Your task to perform on an android device: Go to network settings Image 0: 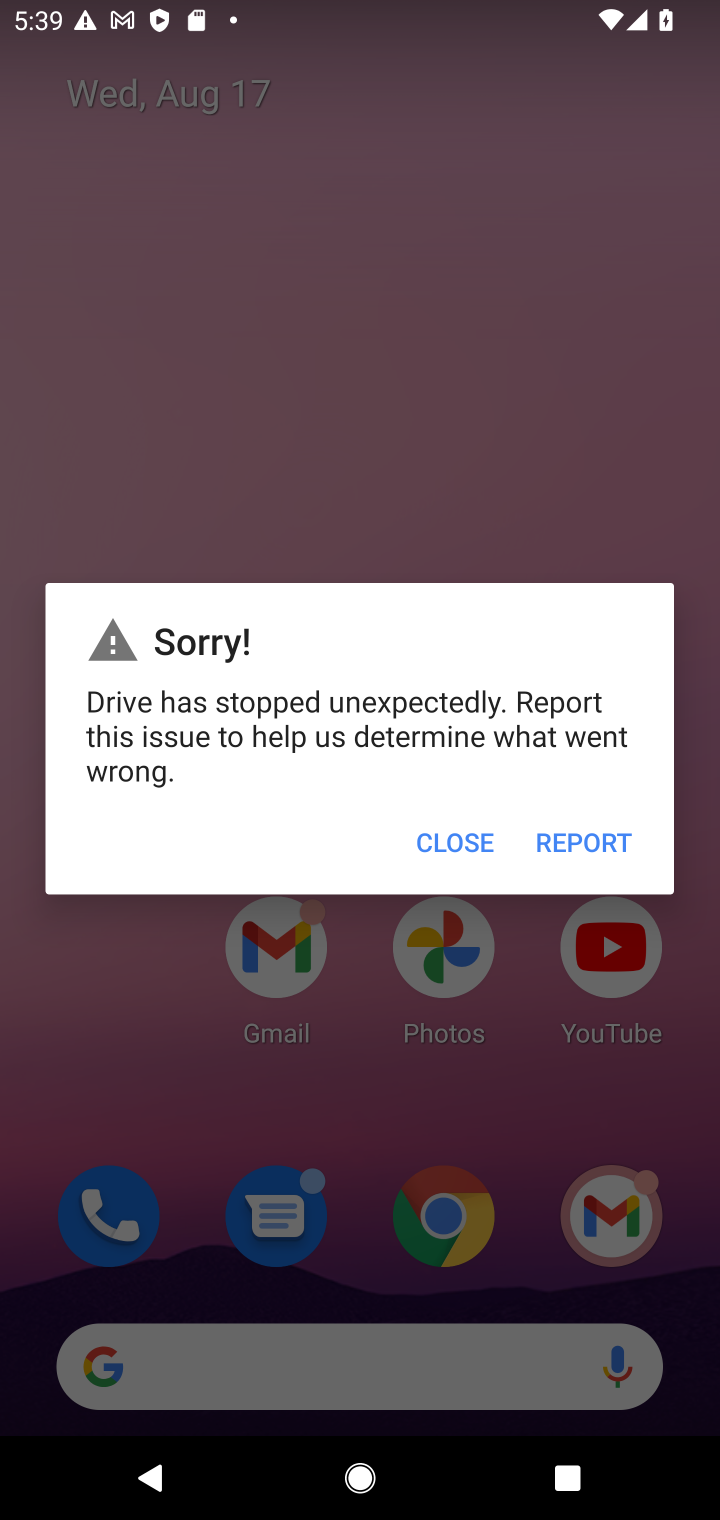
Step 0: press home button
Your task to perform on an android device: Go to network settings Image 1: 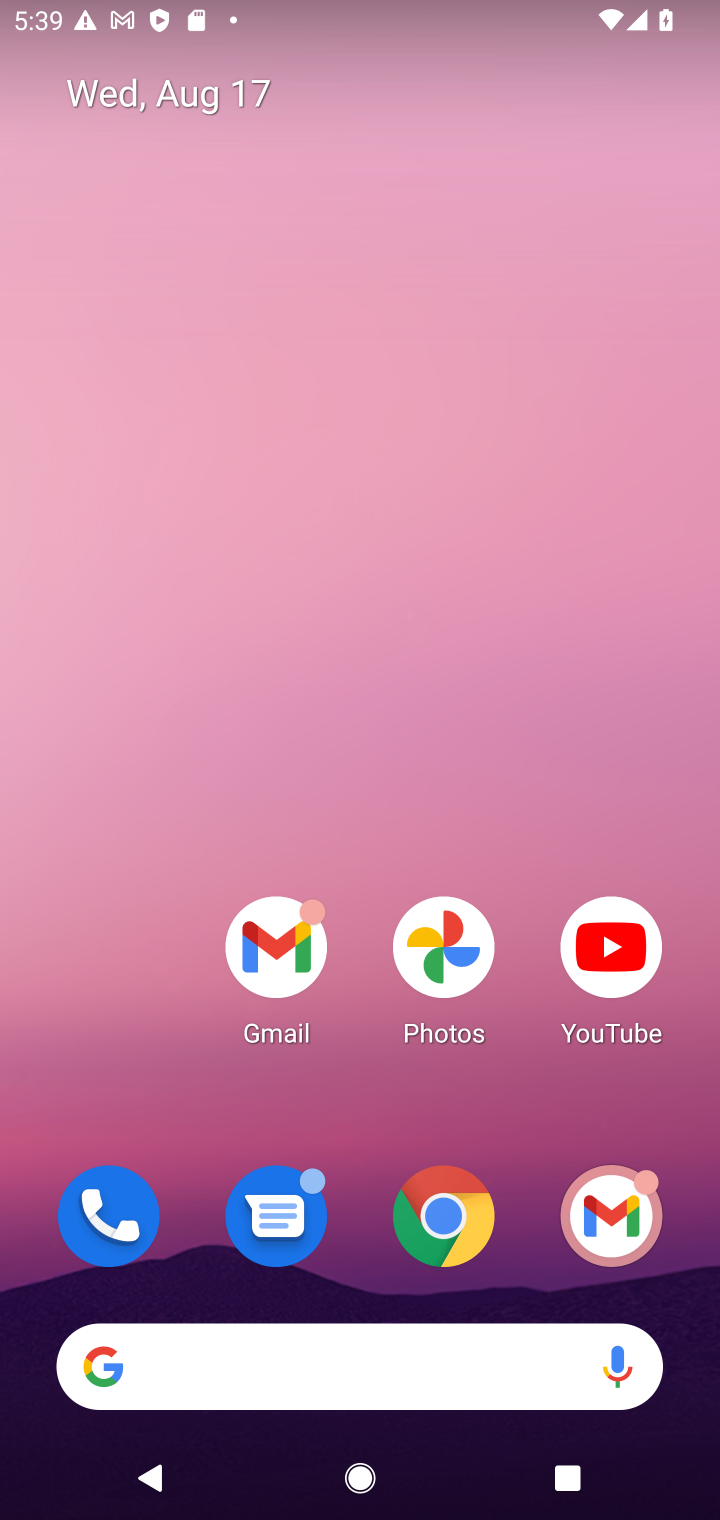
Step 1: drag from (525, 1153) to (515, 108)
Your task to perform on an android device: Go to network settings Image 2: 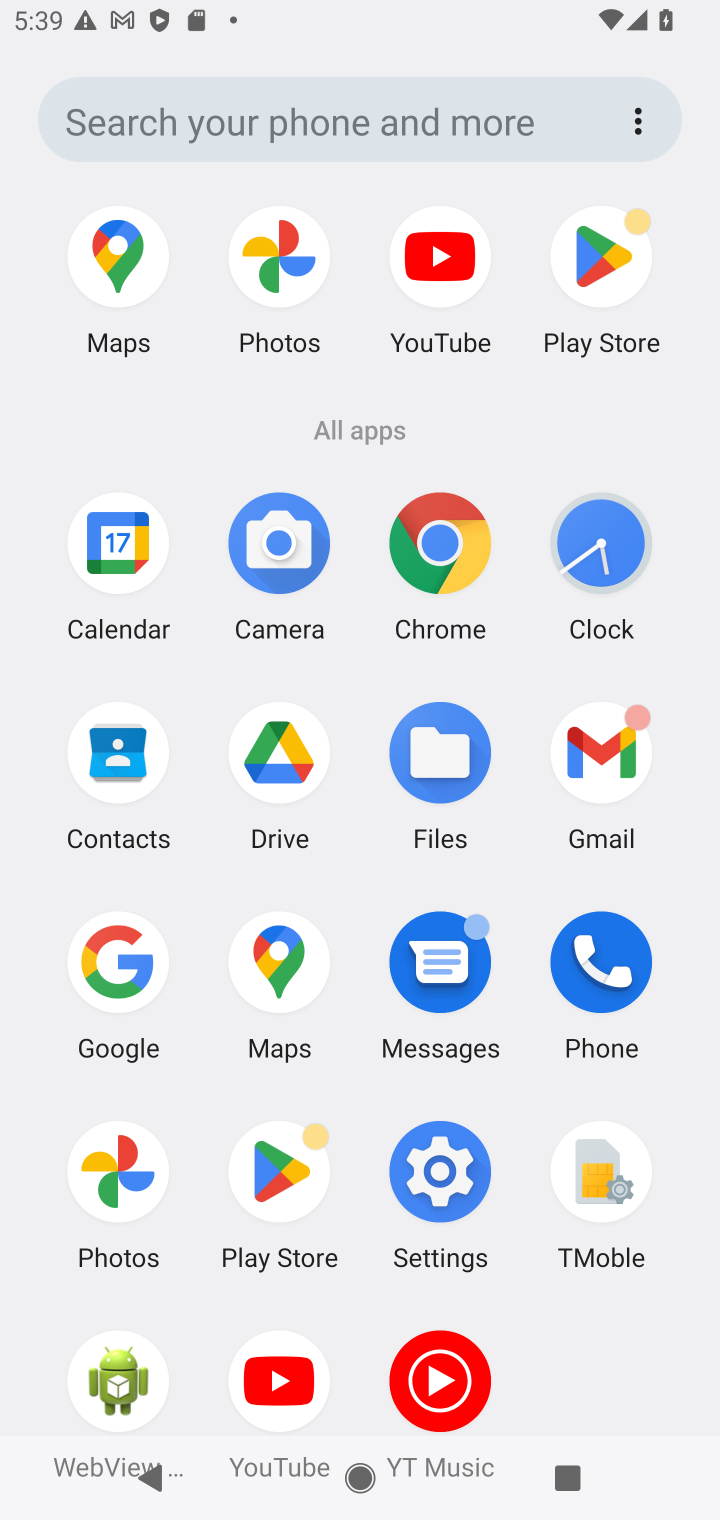
Step 2: click (435, 1163)
Your task to perform on an android device: Go to network settings Image 3: 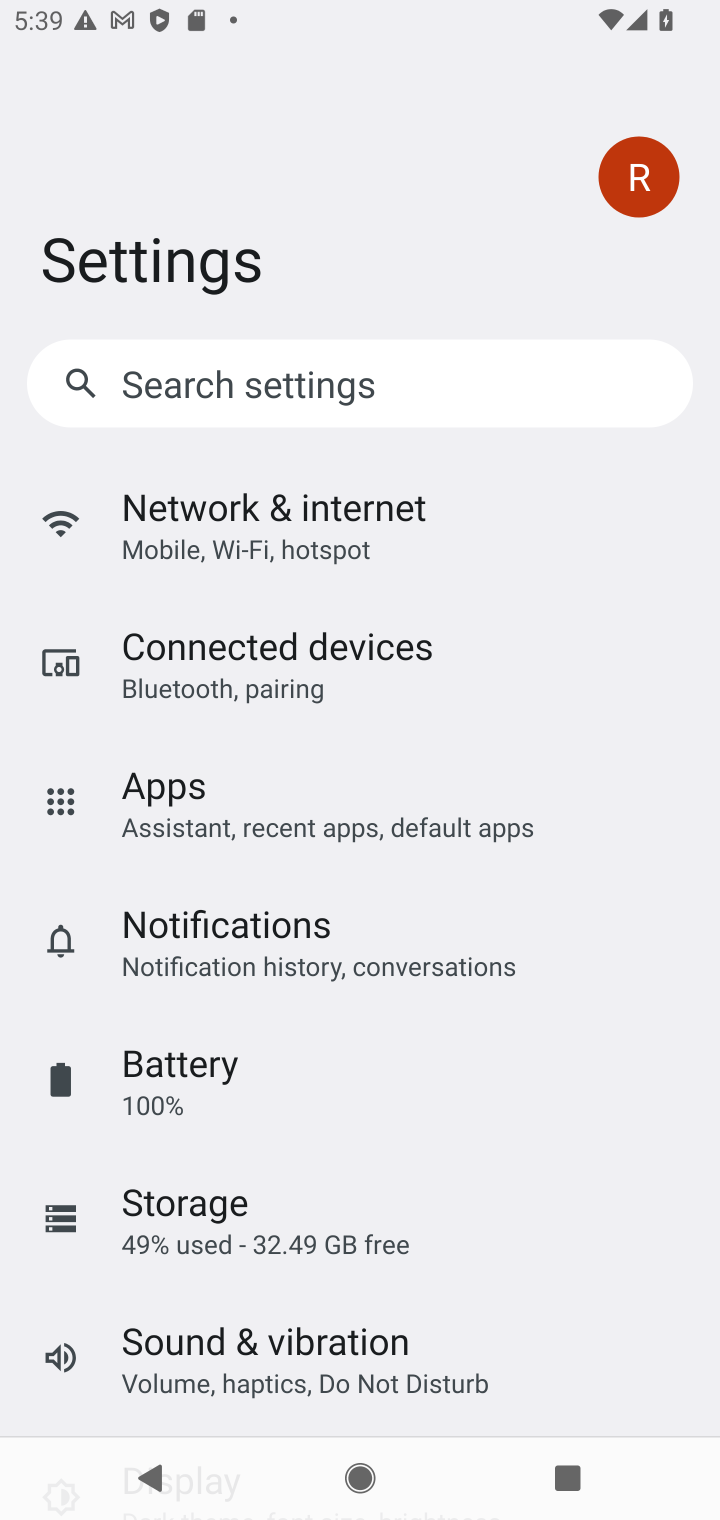
Step 3: drag from (402, 1049) to (415, 866)
Your task to perform on an android device: Go to network settings Image 4: 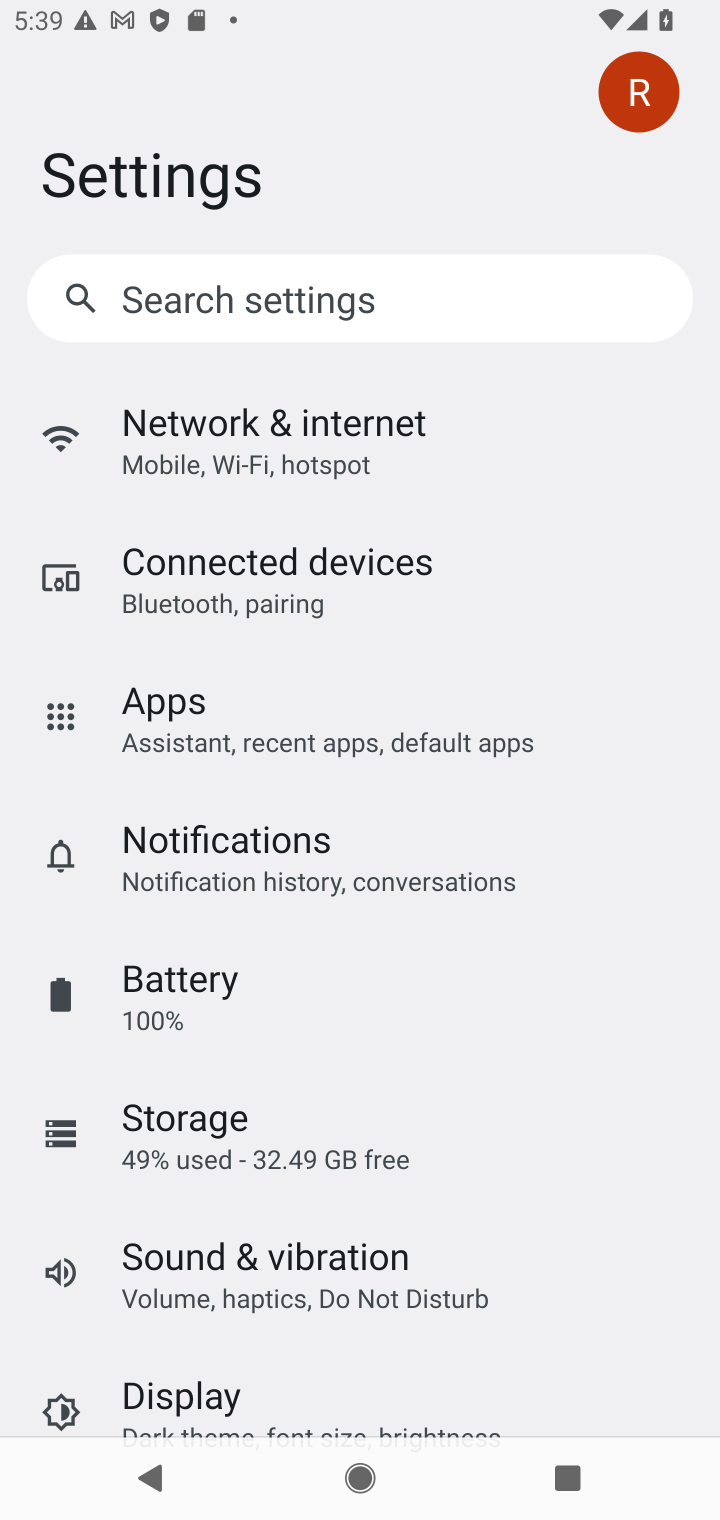
Step 4: click (336, 440)
Your task to perform on an android device: Go to network settings Image 5: 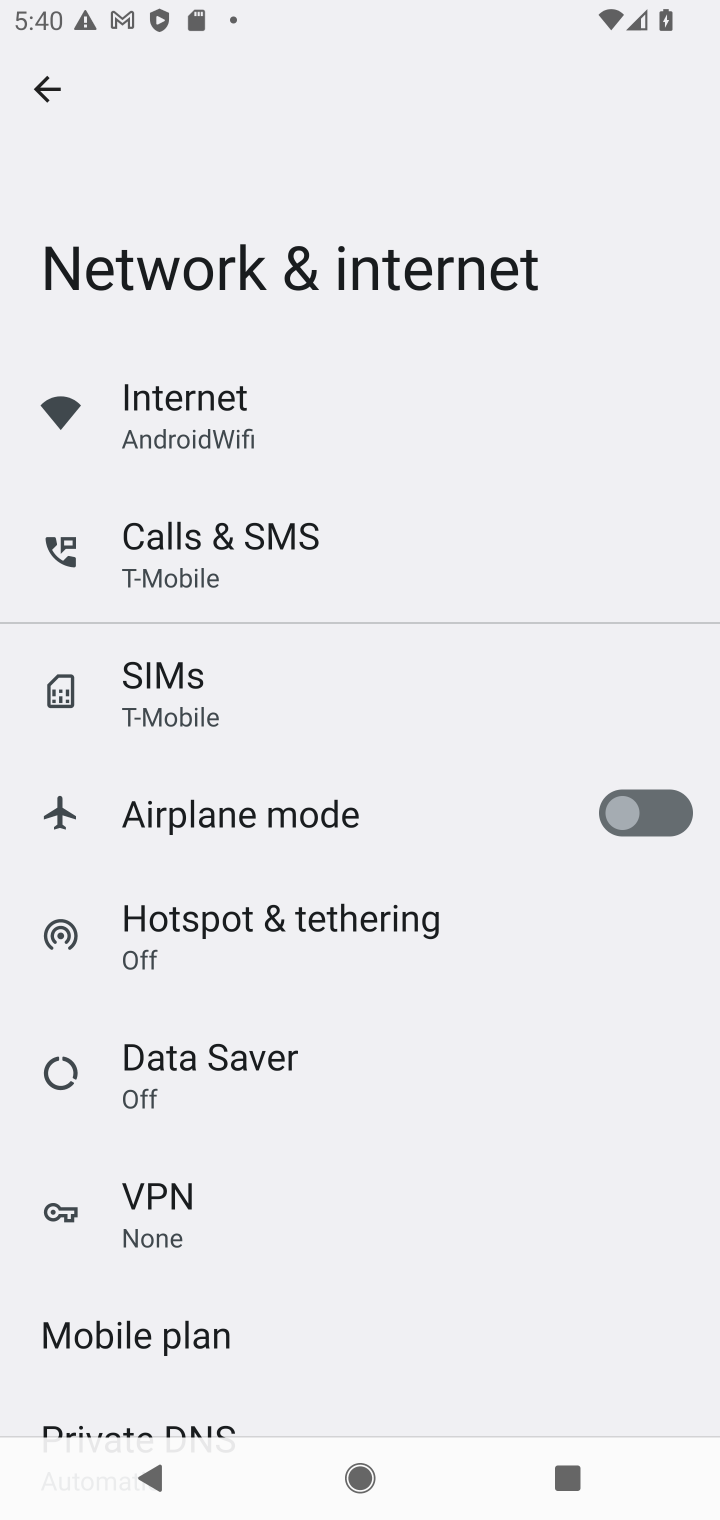
Step 5: task complete